Your task to perform on an android device: change text size in settings app Image 0: 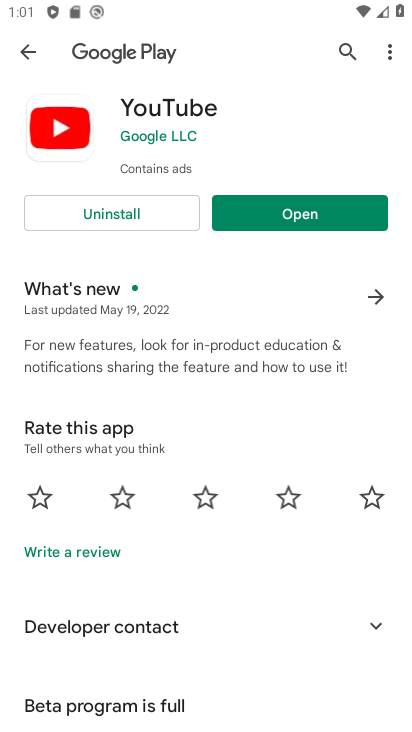
Step 0: press home button
Your task to perform on an android device: change text size in settings app Image 1: 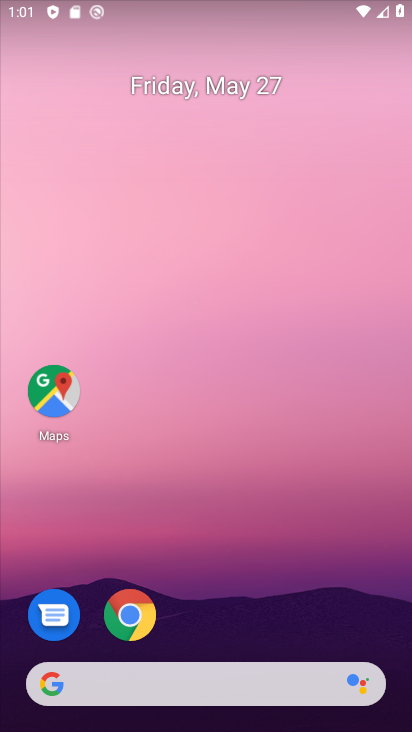
Step 1: drag from (243, 632) to (242, 262)
Your task to perform on an android device: change text size in settings app Image 2: 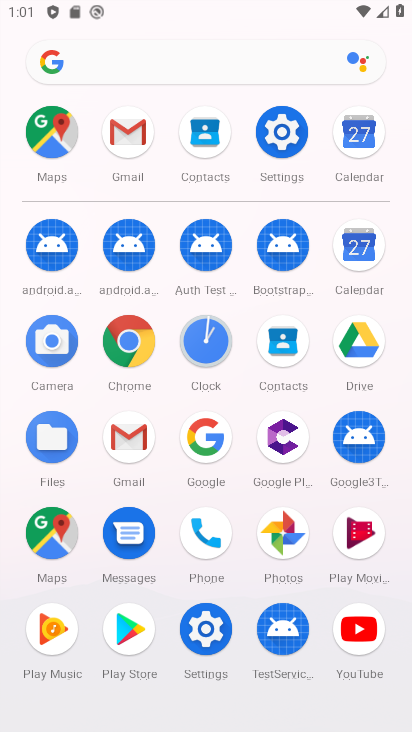
Step 2: click (284, 128)
Your task to perform on an android device: change text size in settings app Image 3: 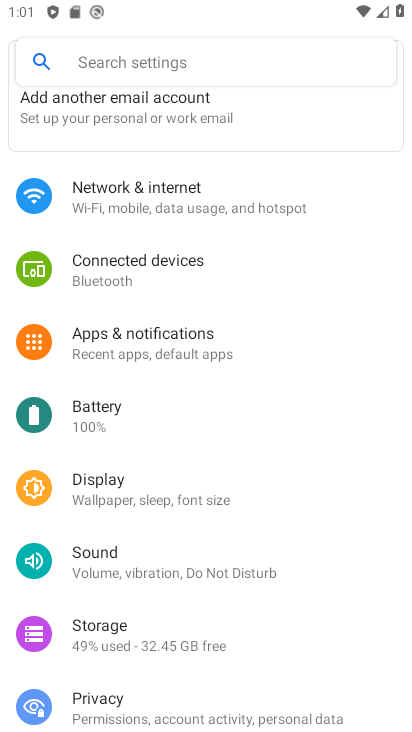
Step 3: click (101, 485)
Your task to perform on an android device: change text size in settings app Image 4: 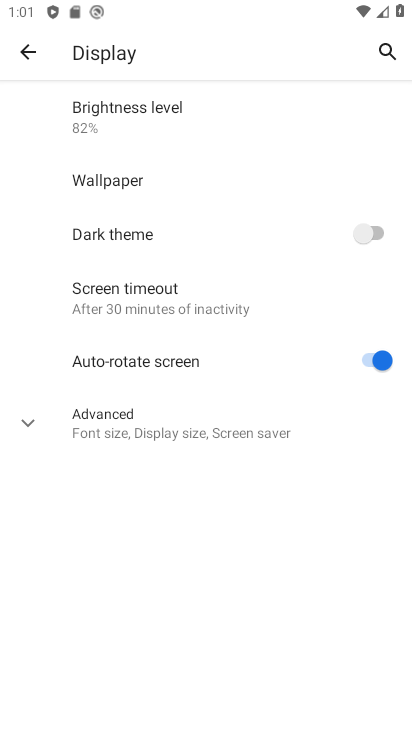
Step 4: click (106, 429)
Your task to perform on an android device: change text size in settings app Image 5: 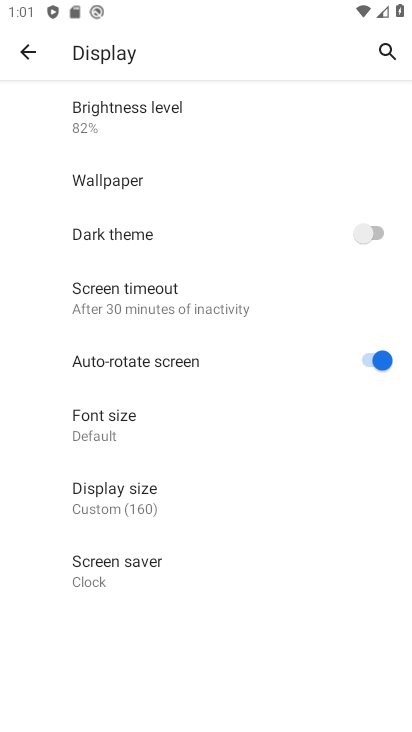
Step 5: click (98, 417)
Your task to perform on an android device: change text size in settings app Image 6: 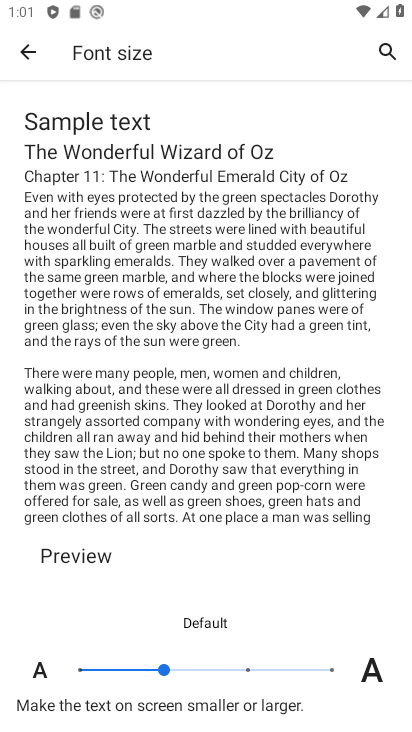
Step 6: click (227, 666)
Your task to perform on an android device: change text size in settings app Image 7: 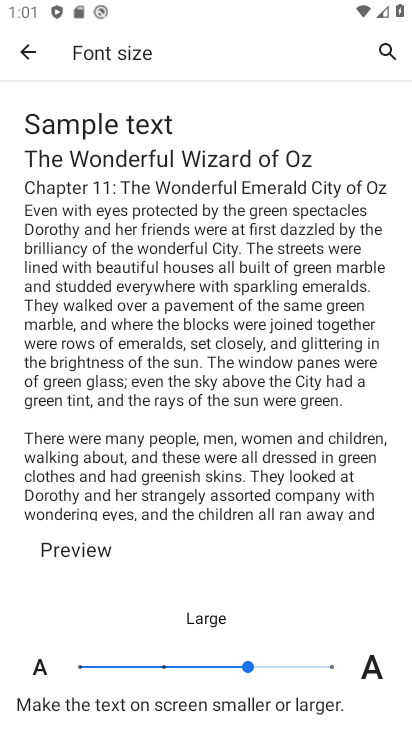
Step 7: task complete